Your task to perform on an android device: change notifications settings Image 0: 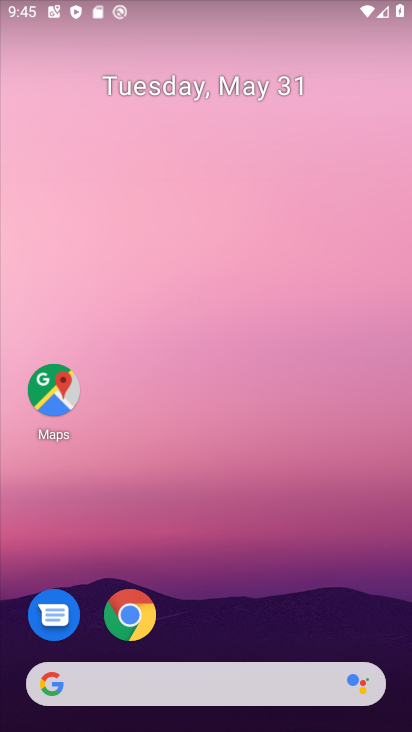
Step 0: drag from (226, 315) to (211, 1)
Your task to perform on an android device: change notifications settings Image 1: 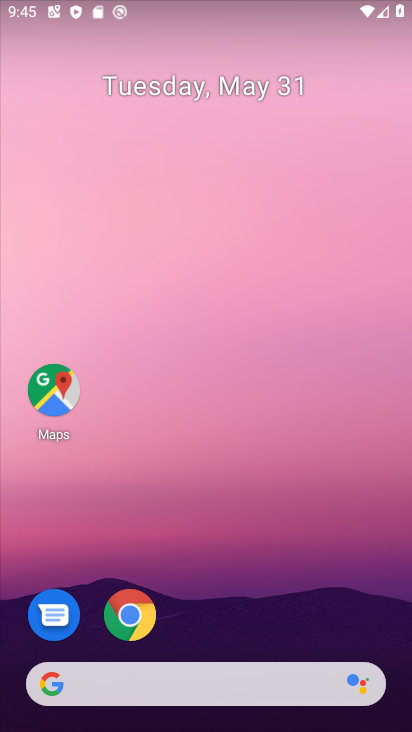
Step 1: drag from (310, 594) to (285, 1)
Your task to perform on an android device: change notifications settings Image 2: 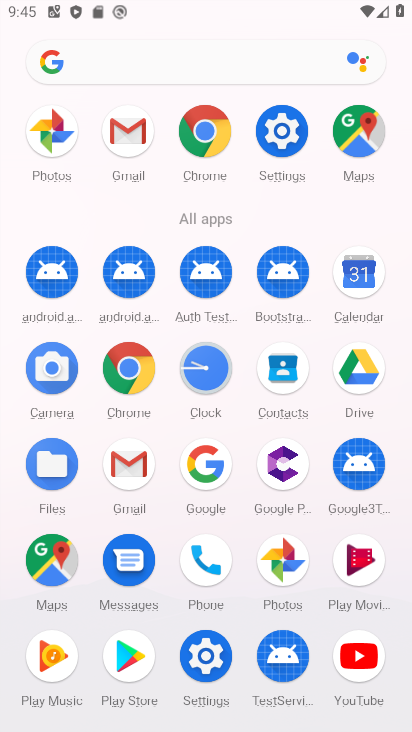
Step 2: click (279, 136)
Your task to perform on an android device: change notifications settings Image 3: 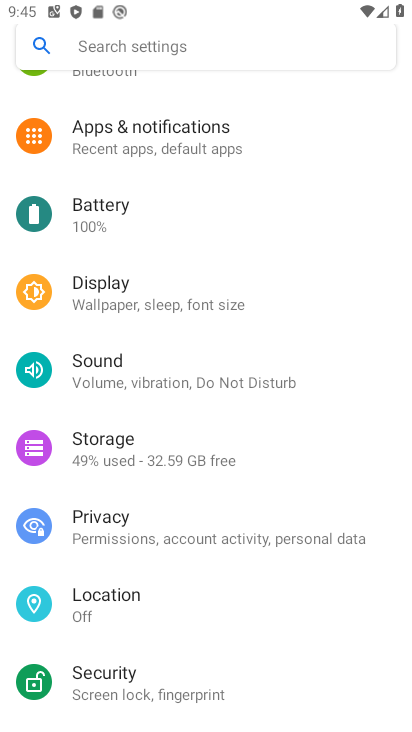
Step 3: click (182, 143)
Your task to perform on an android device: change notifications settings Image 4: 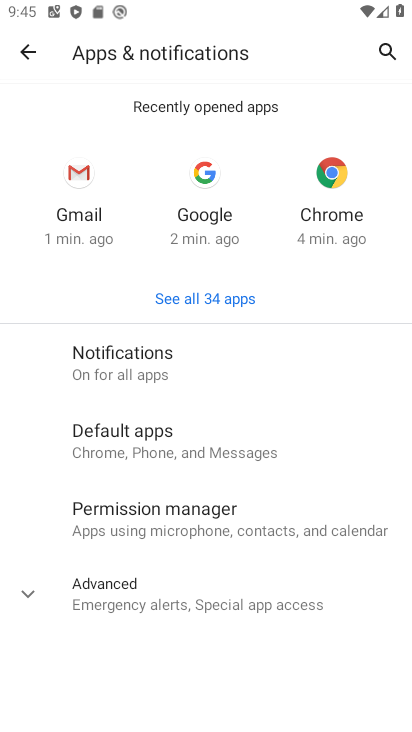
Step 4: click (121, 357)
Your task to perform on an android device: change notifications settings Image 5: 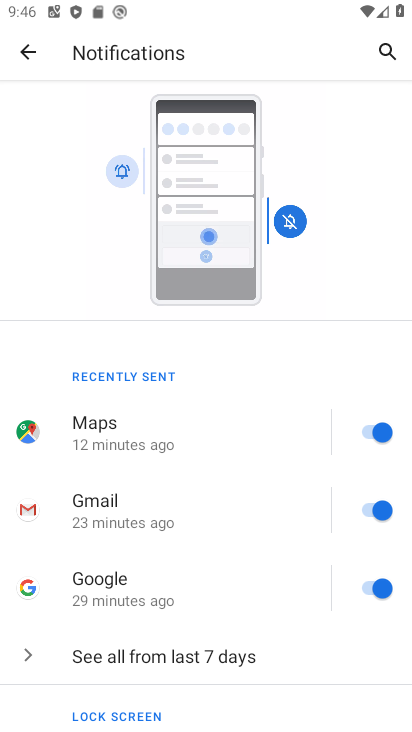
Step 5: drag from (175, 552) to (237, 195)
Your task to perform on an android device: change notifications settings Image 6: 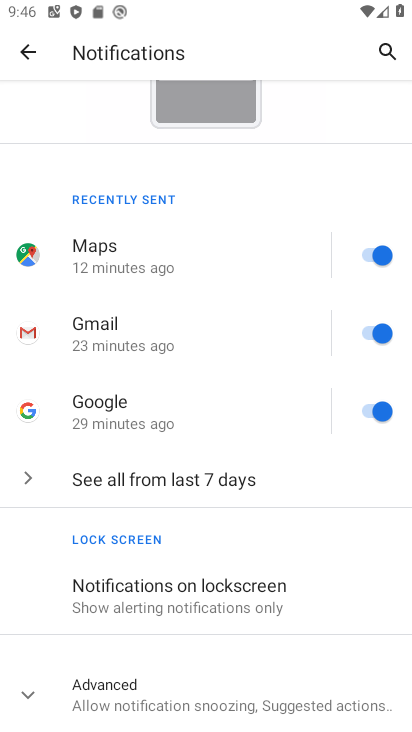
Step 6: click (164, 481)
Your task to perform on an android device: change notifications settings Image 7: 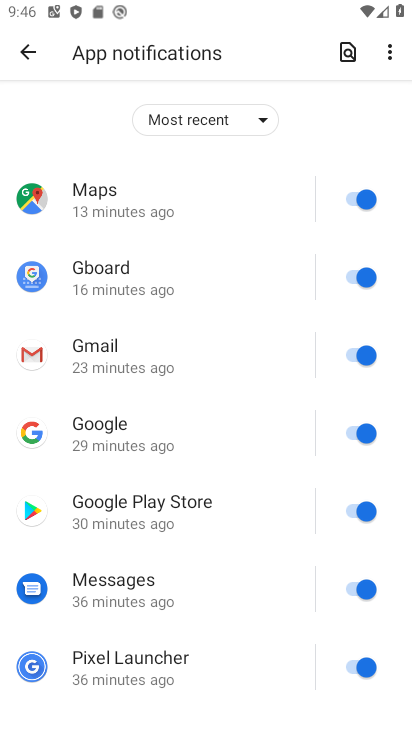
Step 7: click (369, 189)
Your task to perform on an android device: change notifications settings Image 8: 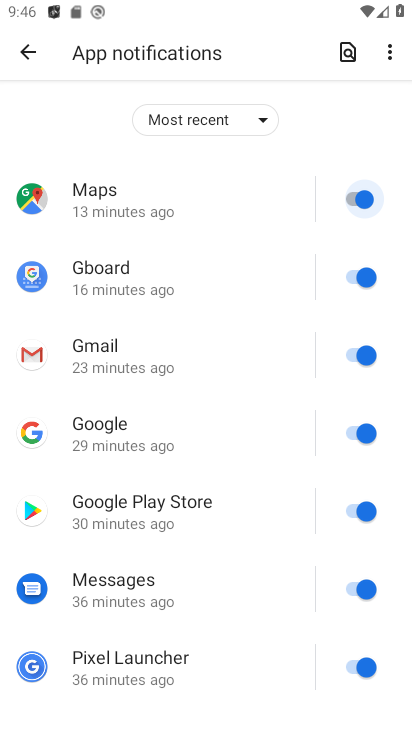
Step 8: click (369, 279)
Your task to perform on an android device: change notifications settings Image 9: 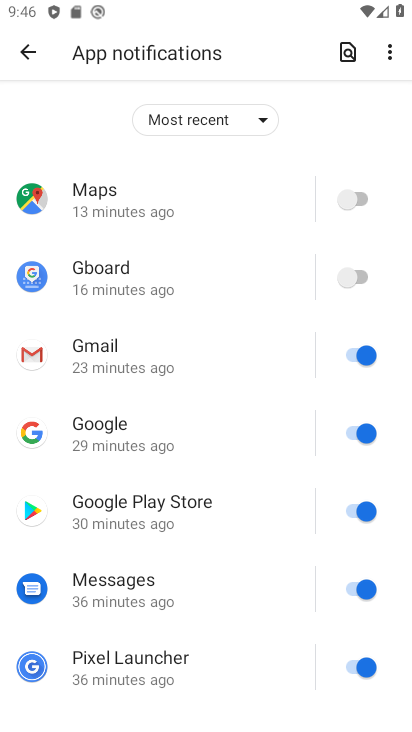
Step 9: click (359, 352)
Your task to perform on an android device: change notifications settings Image 10: 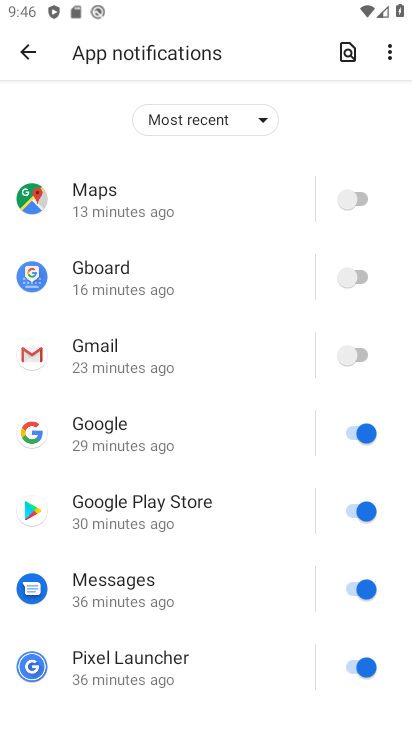
Step 10: click (368, 433)
Your task to perform on an android device: change notifications settings Image 11: 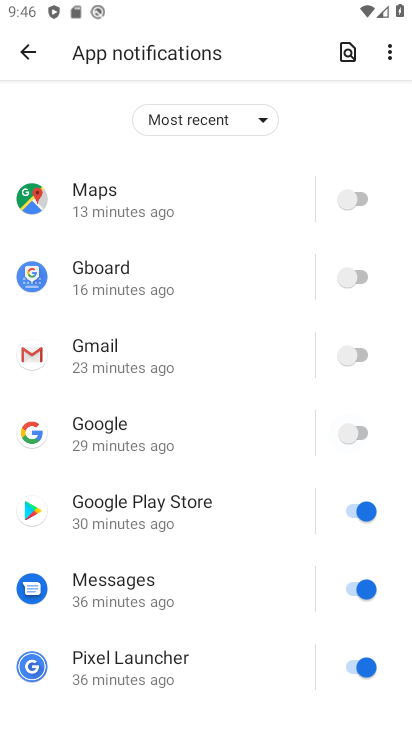
Step 11: click (374, 496)
Your task to perform on an android device: change notifications settings Image 12: 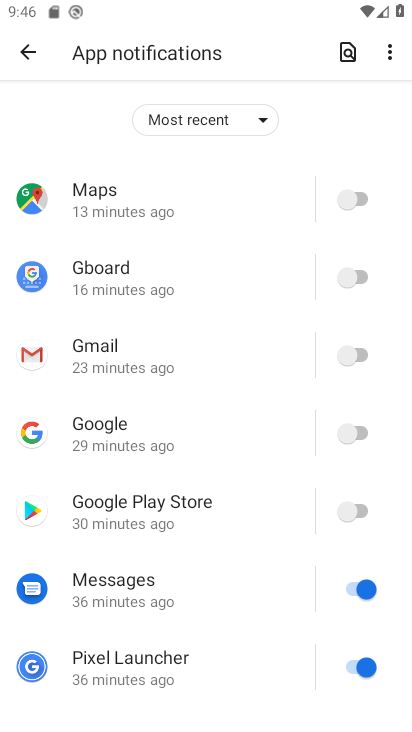
Step 12: click (368, 579)
Your task to perform on an android device: change notifications settings Image 13: 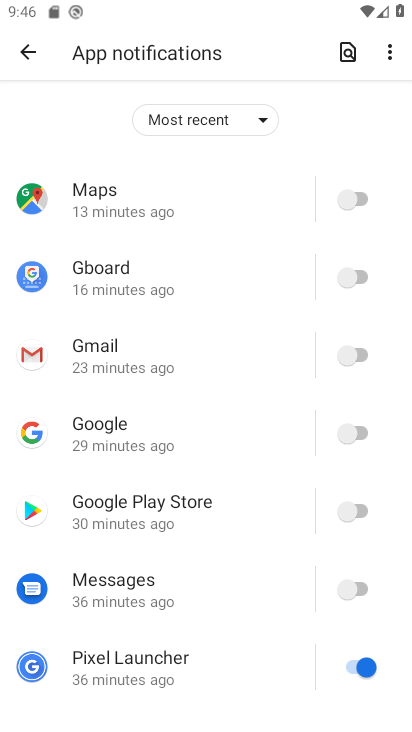
Step 13: click (352, 658)
Your task to perform on an android device: change notifications settings Image 14: 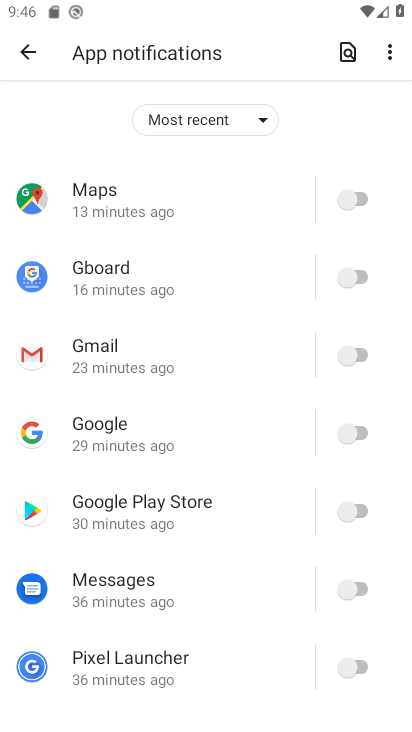
Step 14: drag from (129, 589) to (119, 70)
Your task to perform on an android device: change notifications settings Image 15: 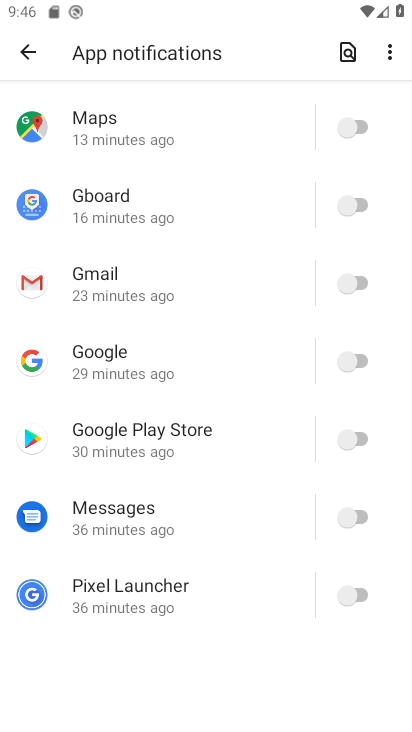
Step 15: click (25, 59)
Your task to perform on an android device: change notifications settings Image 16: 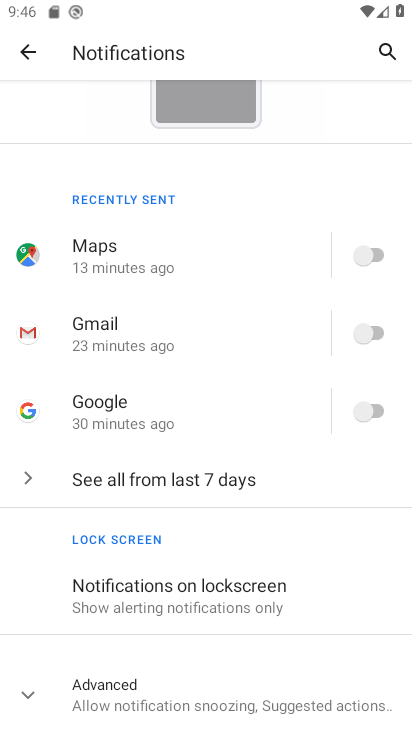
Step 16: click (201, 609)
Your task to perform on an android device: change notifications settings Image 17: 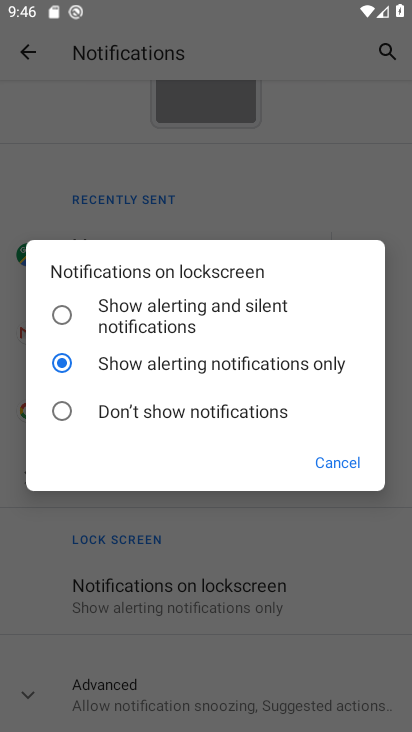
Step 17: click (203, 321)
Your task to perform on an android device: change notifications settings Image 18: 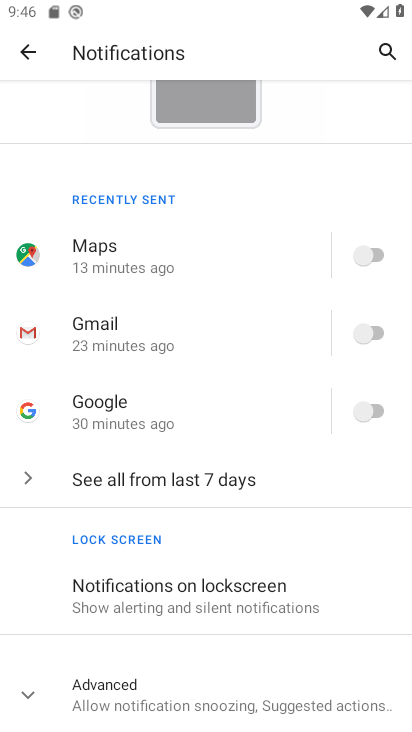
Step 18: drag from (173, 548) to (189, 158)
Your task to perform on an android device: change notifications settings Image 19: 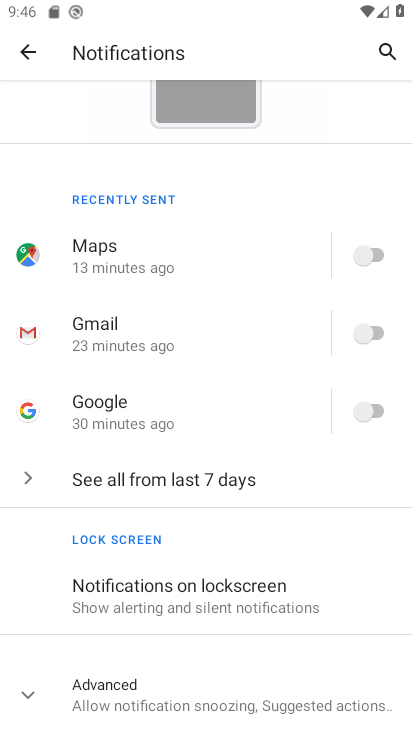
Step 19: click (100, 701)
Your task to perform on an android device: change notifications settings Image 20: 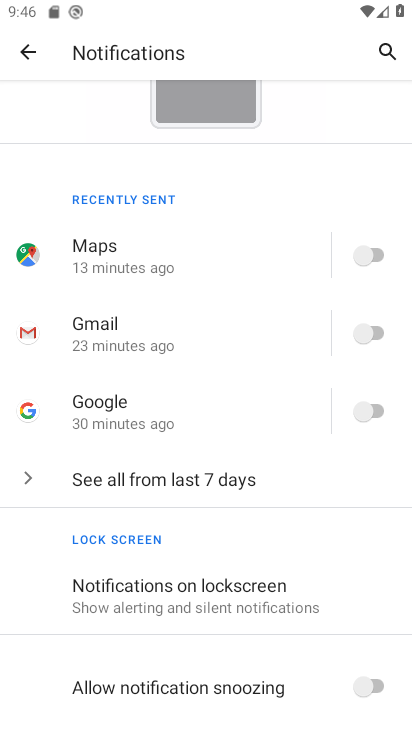
Step 20: drag from (265, 672) to (287, 155)
Your task to perform on an android device: change notifications settings Image 21: 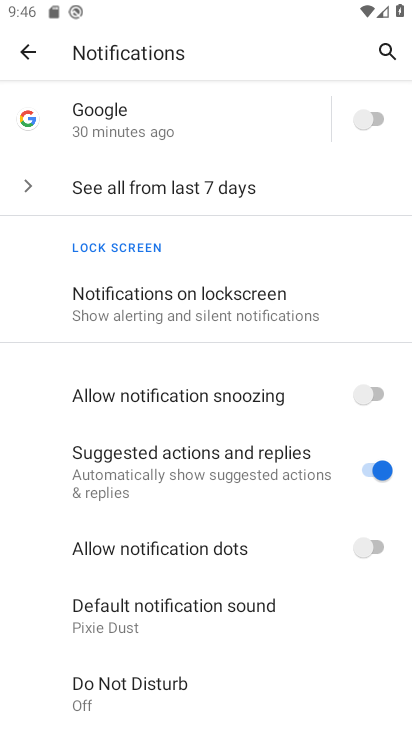
Step 21: click (363, 390)
Your task to perform on an android device: change notifications settings Image 22: 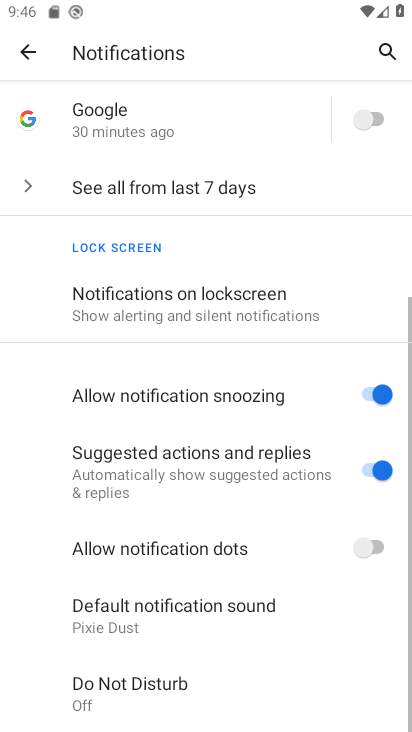
Step 22: click (382, 477)
Your task to perform on an android device: change notifications settings Image 23: 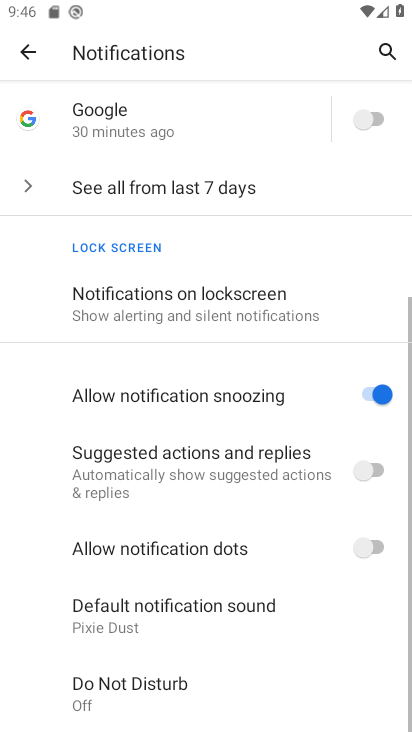
Step 23: click (380, 553)
Your task to perform on an android device: change notifications settings Image 24: 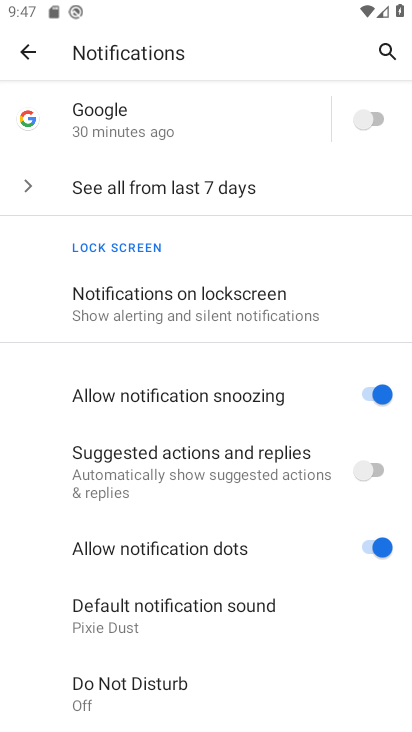
Step 24: task complete